Your task to perform on an android device: see creations saved in the google photos Image 0: 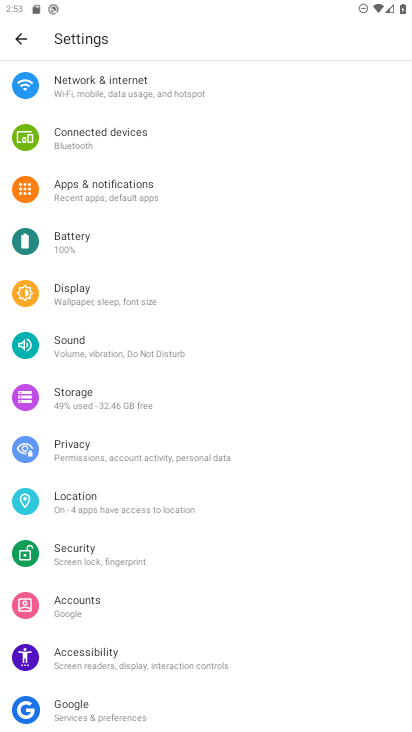
Step 0: press home button
Your task to perform on an android device: see creations saved in the google photos Image 1: 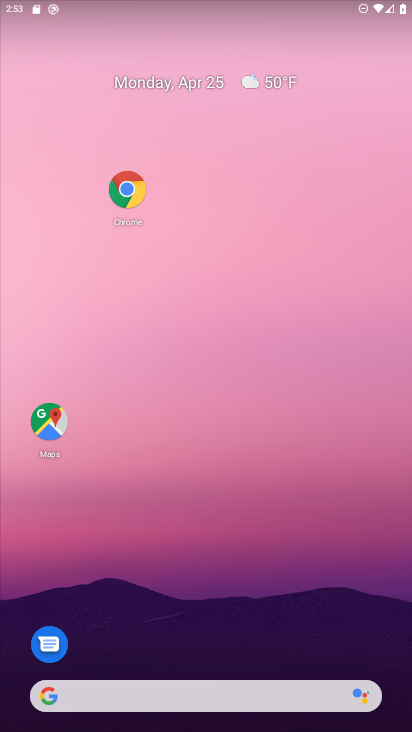
Step 1: drag from (155, 654) to (211, 143)
Your task to perform on an android device: see creations saved in the google photos Image 2: 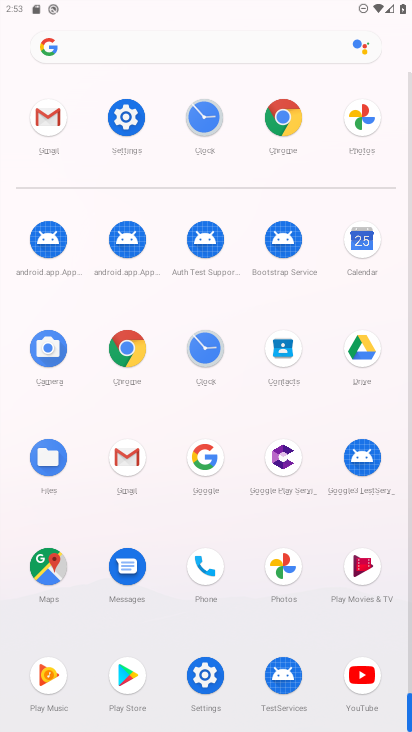
Step 2: click (284, 571)
Your task to perform on an android device: see creations saved in the google photos Image 3: 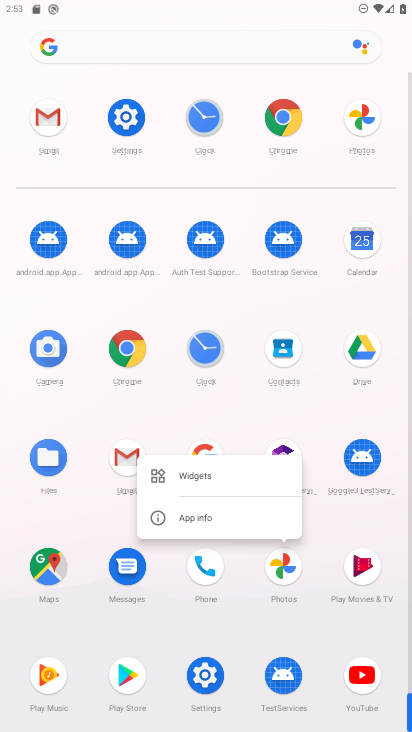
Step 3: click (260, 612)
Your task to perform on an android device: see creations saved in the google photos Image 4: 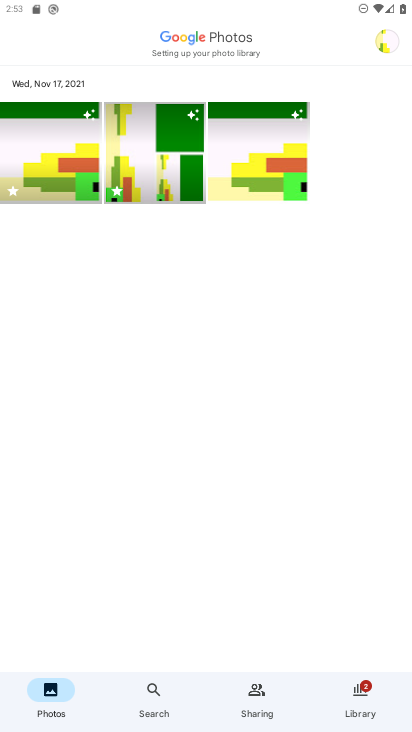
Step 4: click (280, 558)
Your task to perform on an android device: see creations saved in the google photos Image 5: 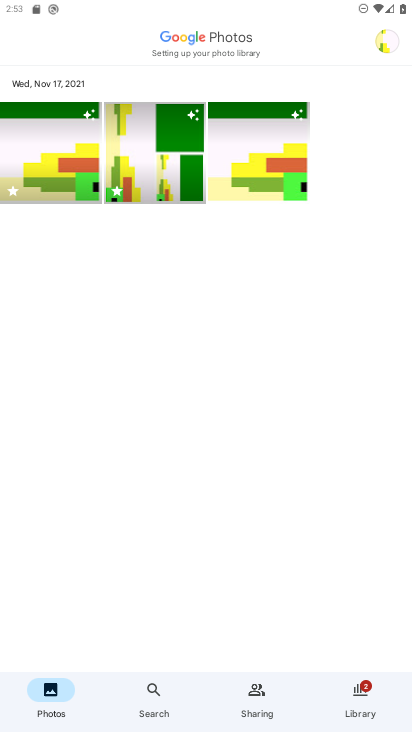
Step 5: click (151, 690)
Your task to perform on an android device: see creations saved in the google photos Image 6: 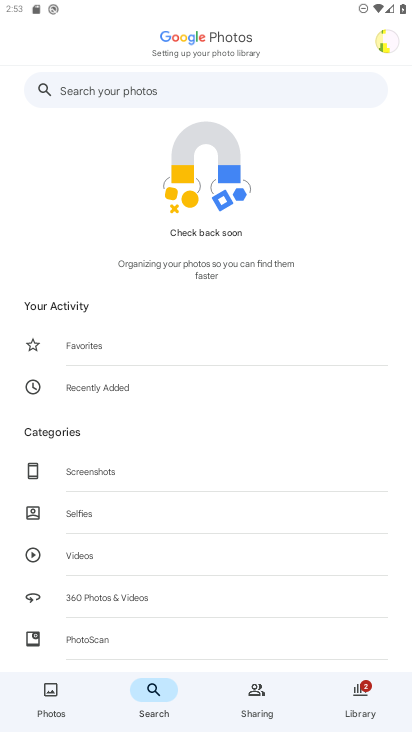
Step 6: click (93, 84)
Your task to perform on an android device: see creations saved in the google photos Image 7: 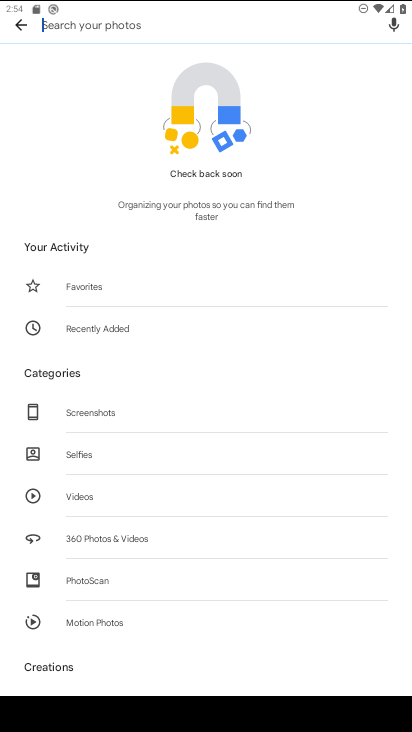
Step 7: type "see creation"
Your task to perform on an android device: see creations saved in the google photos Image 8: 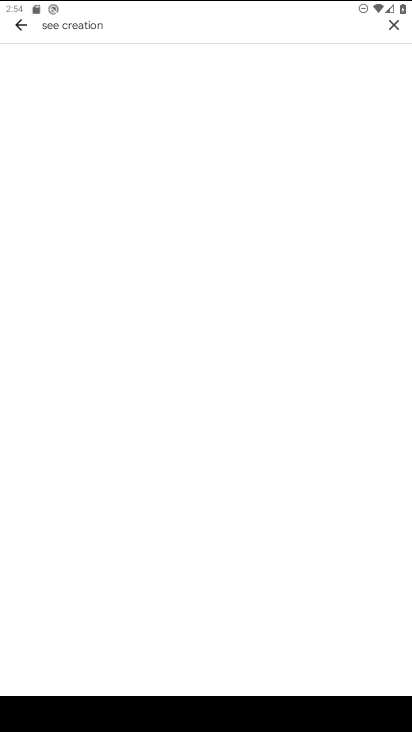
Step 8: task complete